Your task to perform on an android device: find which apps use the phone's location Image 0: 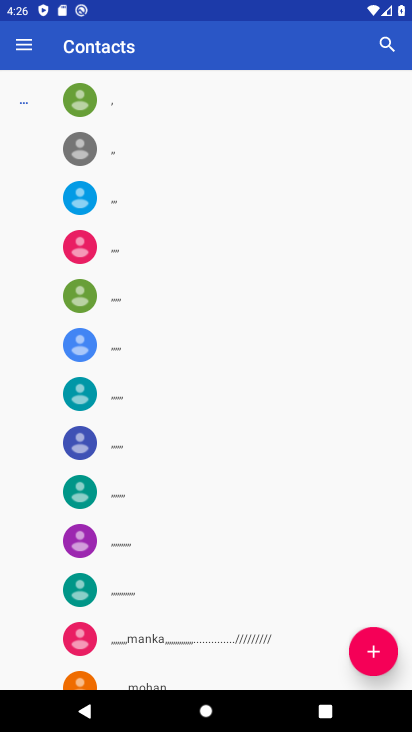
Step 0: press back button
Your task to perform on an android device: find which apps use the phone's location Image 1: 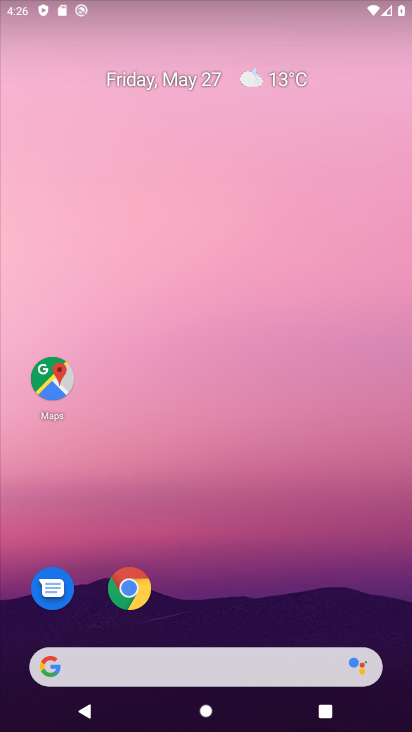
Step 1: drag from (236, 530) to (316, 46)
Your task to perform on an android device: find which apps use the phone's location Image 2: 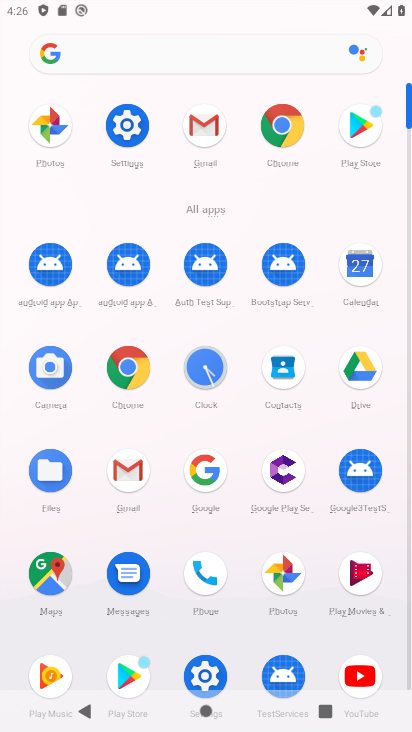
Step 2: click (128, 125)
Your task to perform on an android device: find which apps use the phone's location Image 3: 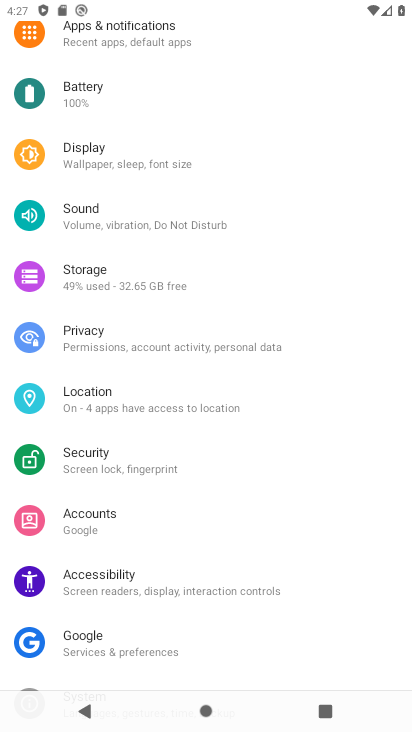
Step 3: click (152, 399)
Your task to perform on an android device: find which apps use the phone's location Image 4: 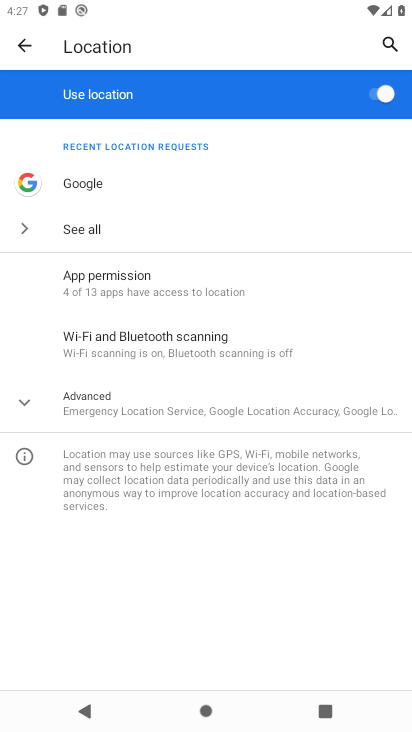
Step 4: click (100, 269)
Your task to perform on an android device: find which apps use the phone's location Image 5: 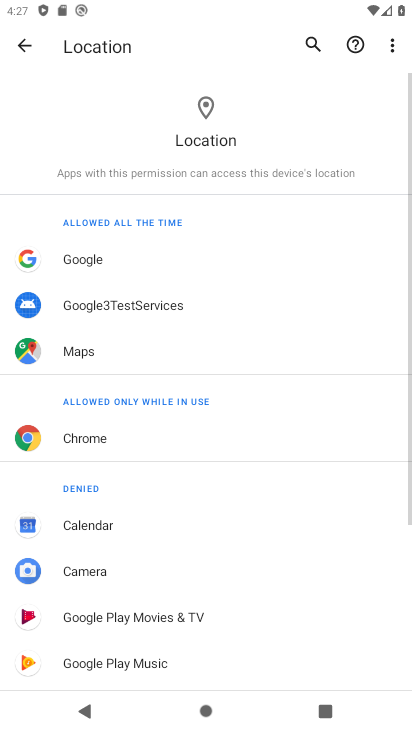
Step 5: task complete